Your task to perform on an android device: toggle improve location accuracy Image 0: 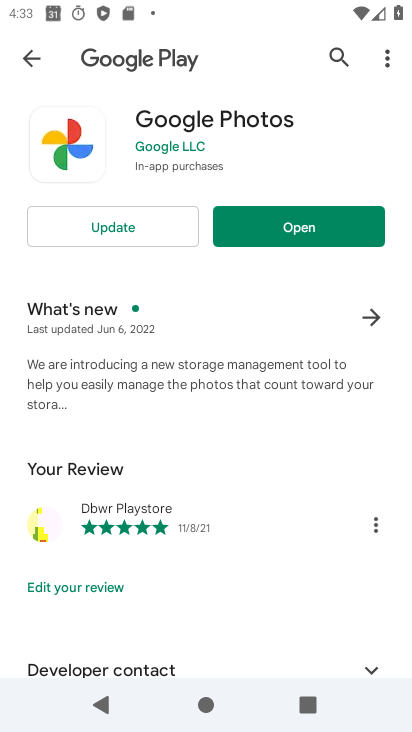
Step 0: press home button
Your task to perform on an android device: toggle improve location accuracy Image 1: 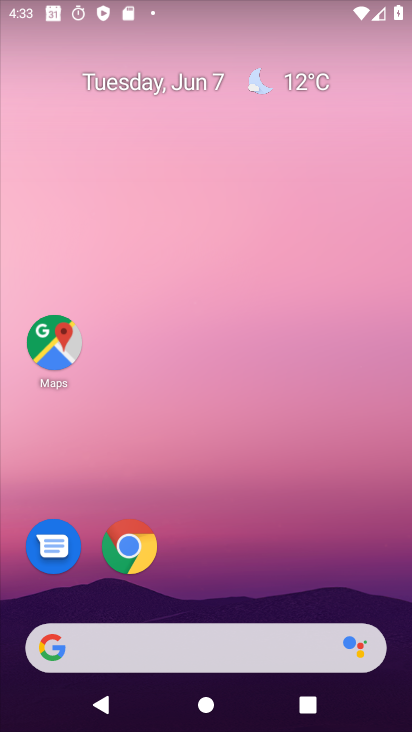
Step 1: drag from (181, 573) to (157, 159)
Your task to perform on an android device: toggle improve location accuracy Image 2: 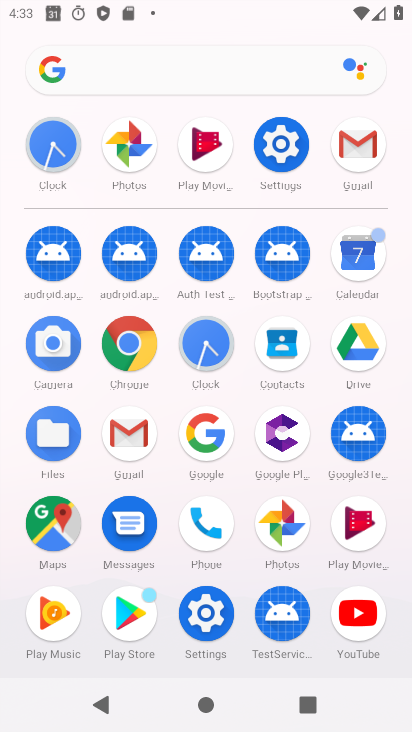
Step 2: click (266, 171)
Your task to perform on an android device: toggle improve location accuracy Image 3: 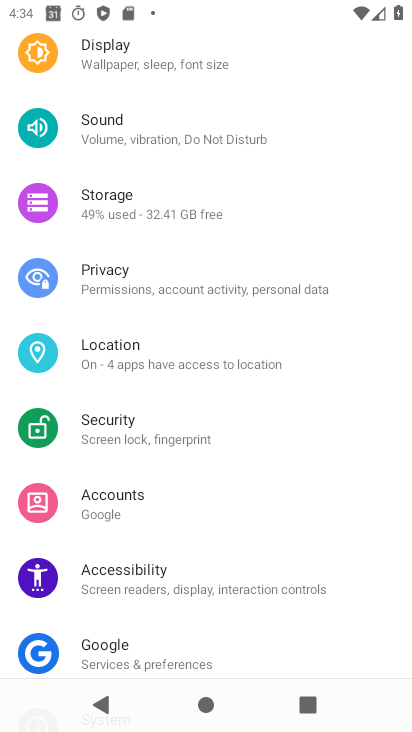
Step 3: click (130, 346)
Your task to perform on an android device: toggle improve location accuracy Image 4: 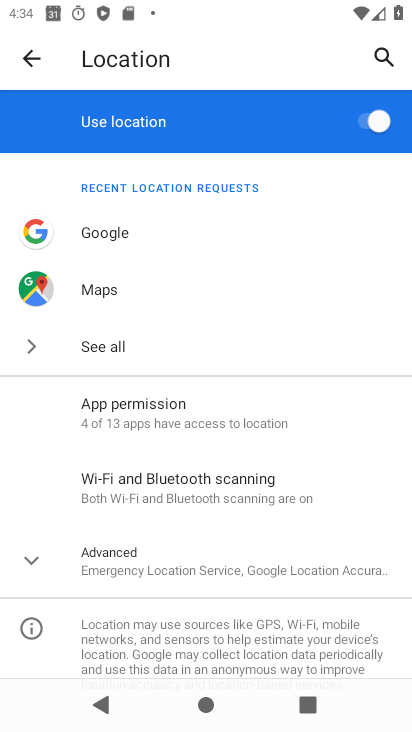
Step 4: click (178, 573)
Your task to perform on an android device: toggle improve location accuracy Image 5: 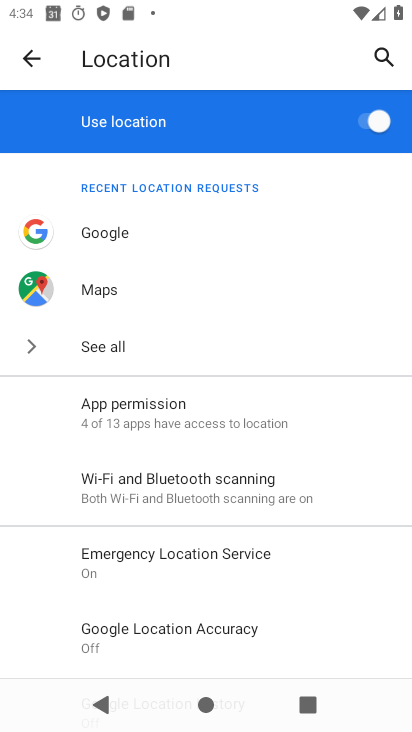
Step 5: click (153, 639)
Your task to perform on an android device: toggle improve location accuracy Image 6: 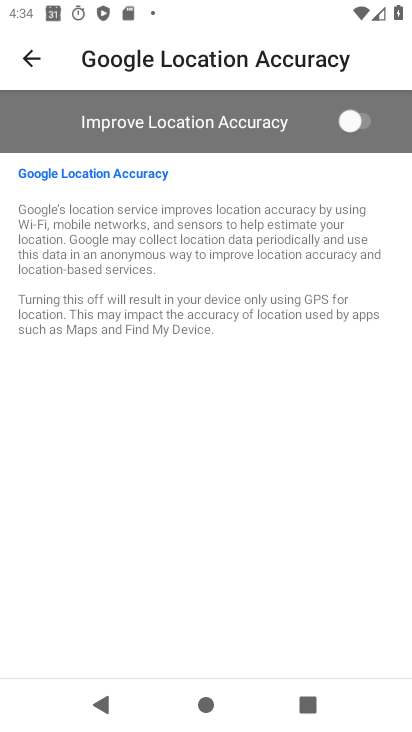
Step 6: click (359, 117)
Your task to perform on an android device: toggle improve location accuracy Image 7: 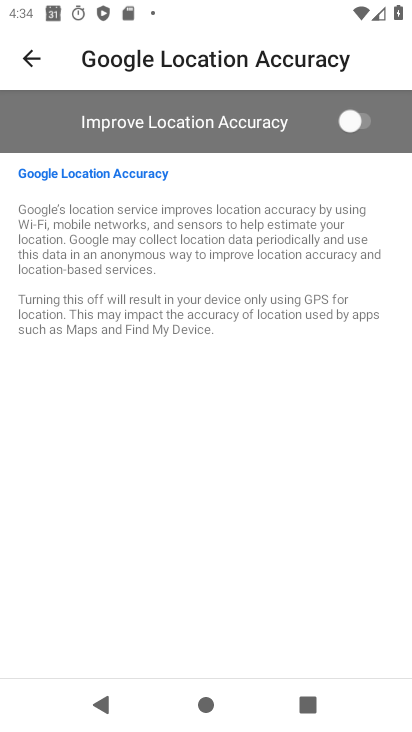
Step 7: click (359, 117)
Your task to perform on an android device: toggle improve location accuracy Image 8: 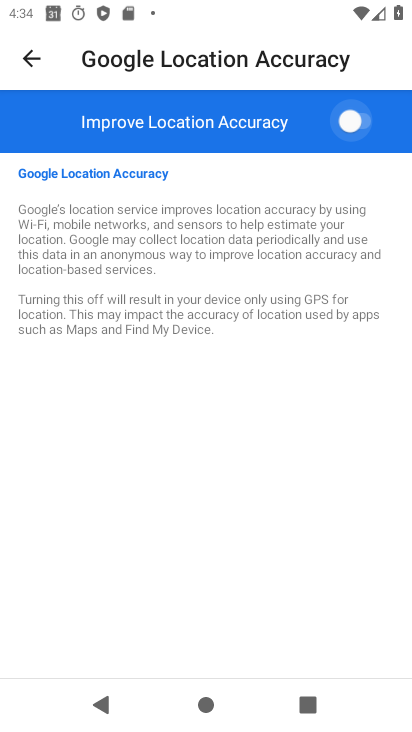
Step 8: click (359, 117)
Your task to perform on an android device: toggle improve location accuracy Image 9: 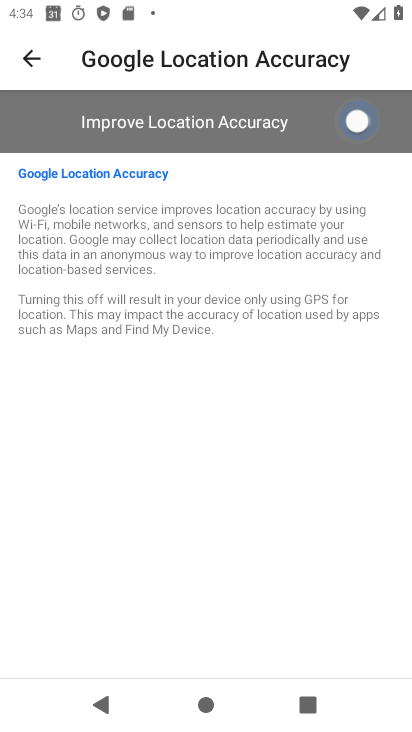
Step 9: click (359, 117)
Your task to perform on an android device: toggle improve location accuracy Image 10: 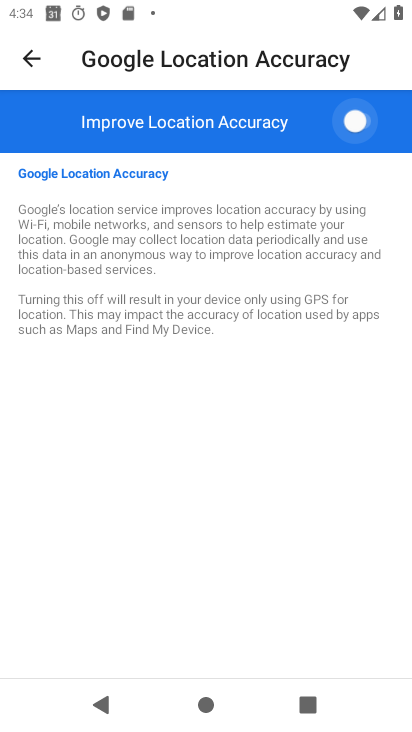
Step 10: click (359, 117)
Your task to perform on an android device: toggle improve location accuracy Image 11: 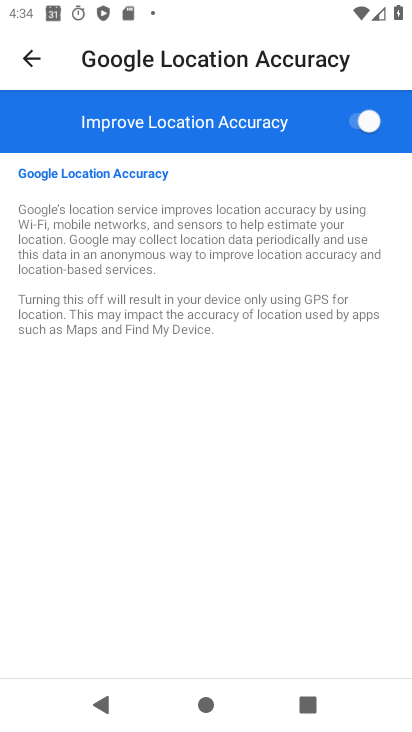
Step 11: click (359, 117)
Your task to perform on an android device: toggle improve location accuracy Image 12: 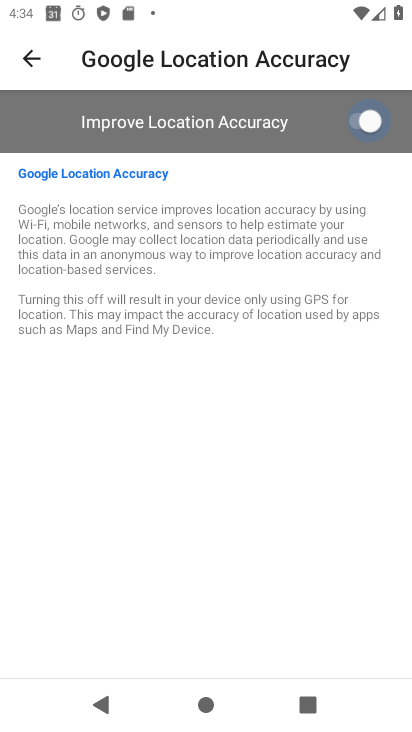
Step 12: click (359, 117)
Your task to perform on an android device: toggle improve location accuracy Image 13: 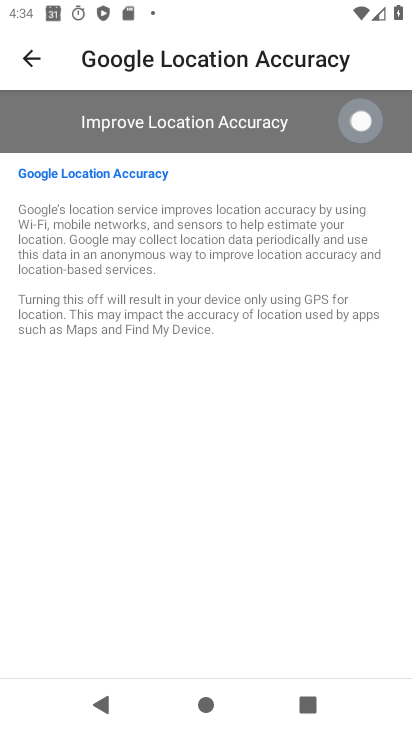
Step 13: click (359, 117)
Your task to perform on an android device: toggle improve location accuracy Image 14: 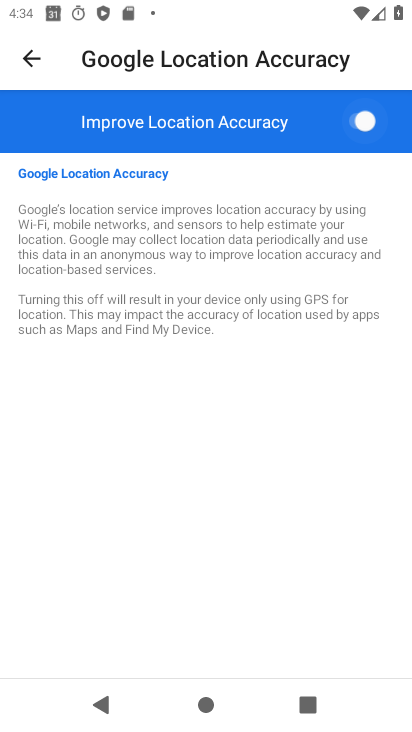
Step 14: click (359, 117)
Your task to perform on an android device: toggle improve location accuracy Image 15: 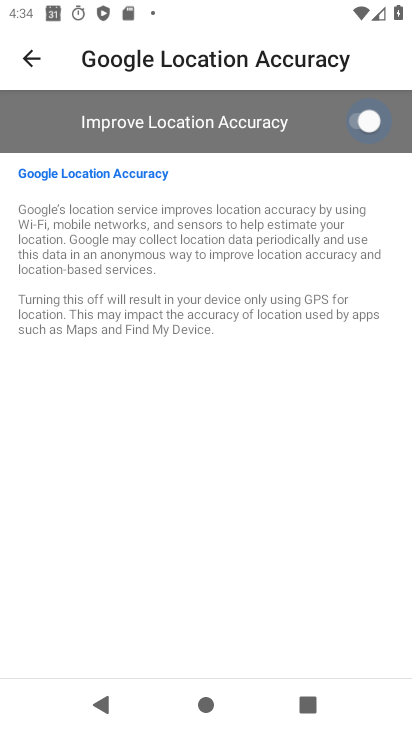
Step 15: click (359, 117)
Your task to perform on an android device: toggle improve location accuracy Image 16: 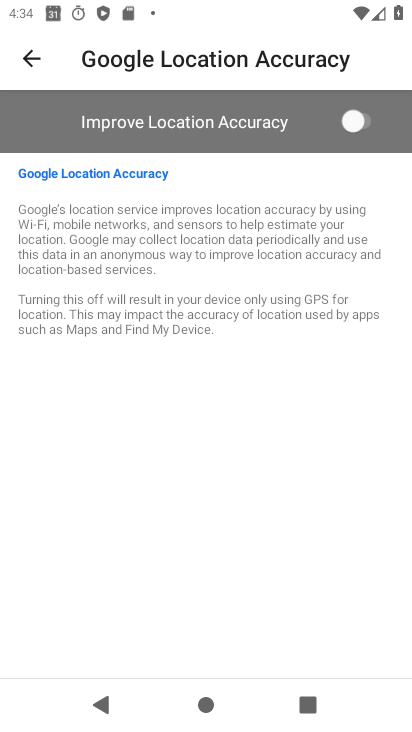
Step 16: click (359, 117)
Your task to perform on an android device: toggle improve location accuracy Image 17: 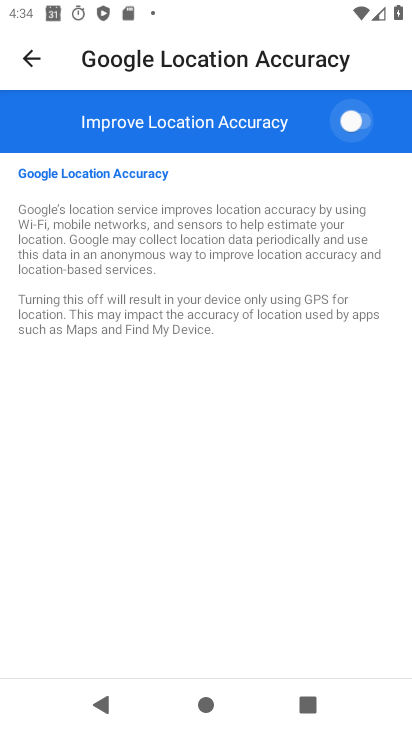
Step 17: click (359, 117)
Your task to perform on an android device: toggle improve location accuracy Image 18: 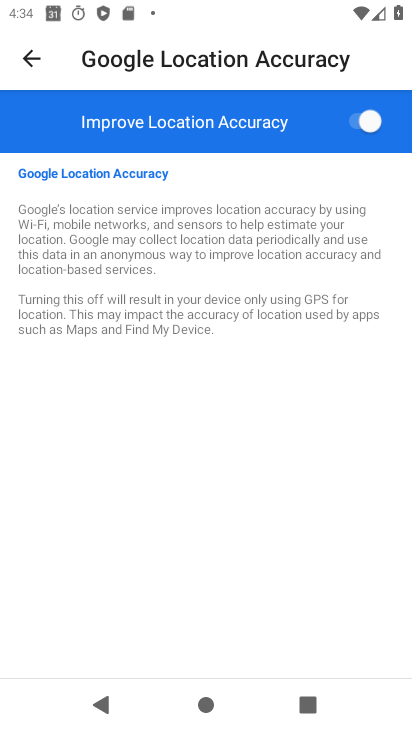
Step 18: task complete